Your task to perform on an android device: turn on bluetooth scan Image 0: 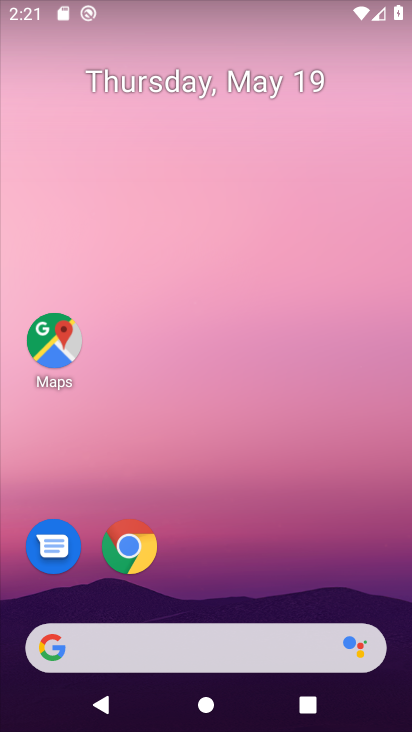
Step 0: drag from (221, 500) to (230, 57)
Your task to perform on an android device: turn on bluetooth scan Image 1: 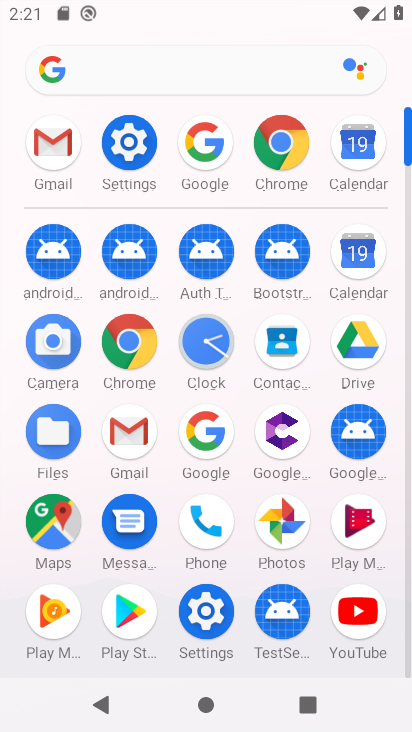
Step 1: click (200, 612)
Your task to perform on an android device: turn on bluetooth scan Image 2: 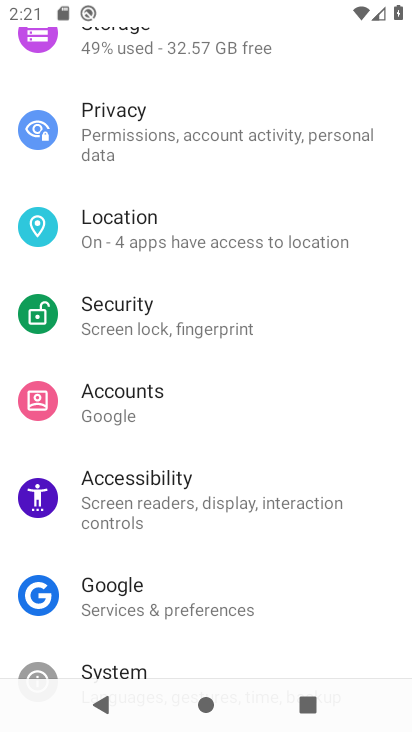
Step 2: click (167, 234)
Your task to perform on an android device: turn on bluetooth scan Image 3: 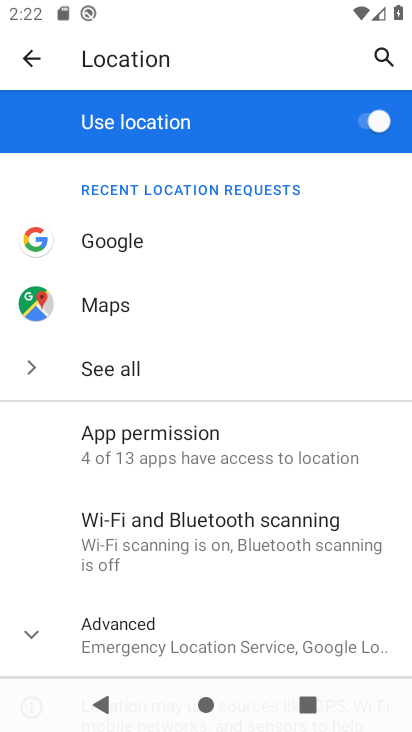
Step 3: click (67, 532)
Your task to perform on an android device: turn on bluetooth scan Image 4: 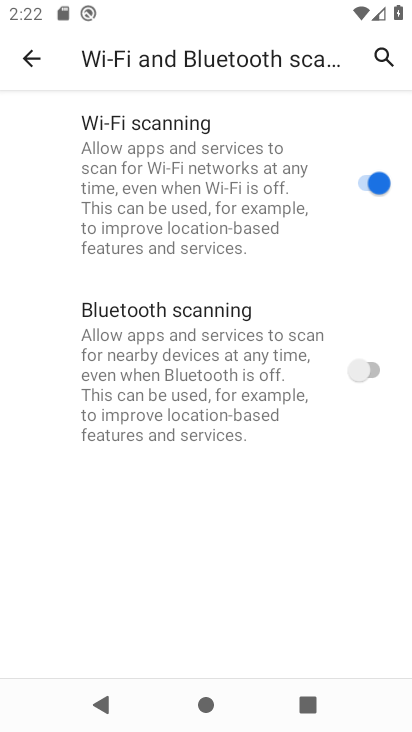
Step 4: click (374, 365)
Your task to perform on an android device: turn on bluetooth scan Image 5: 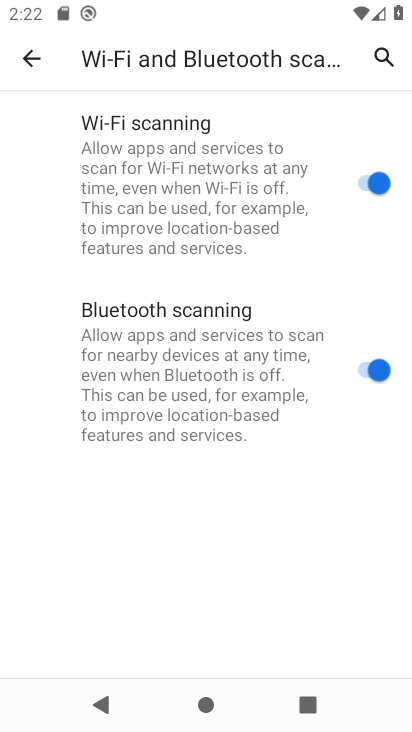
Step 5: task complete